Your task to perform on an android device: Open calendar and show me the fourth week of next month Image 0: 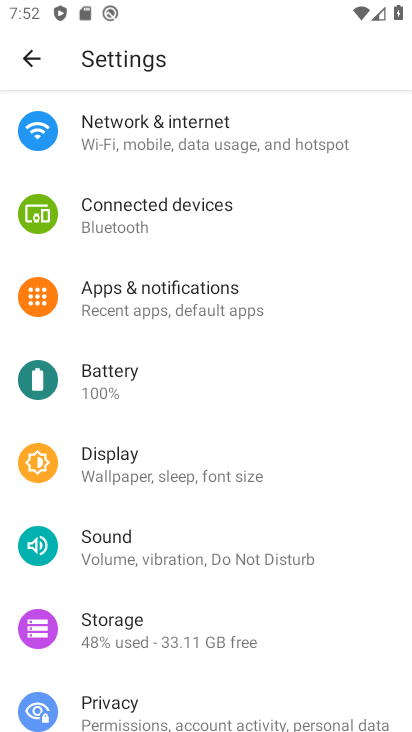
Step 0: press home button
Your task to perform on an android device: Open calendar and show me the fourth week of next month Image 1: 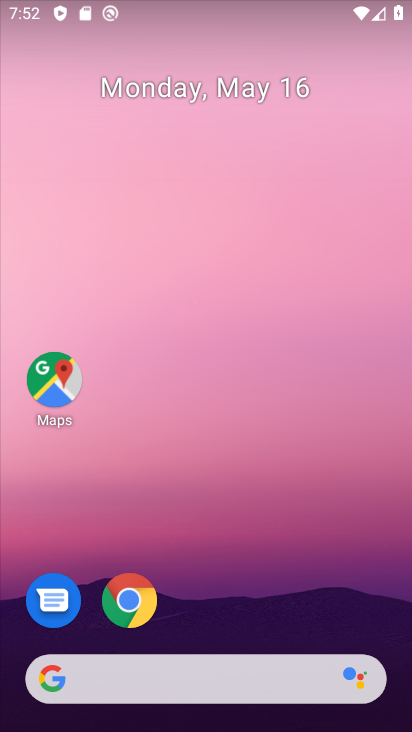
Step 1: drag from (401, 635) to (336, 91)
Your task to perform on an android device: Open calendar and show me the fourth week of next month Image 2: 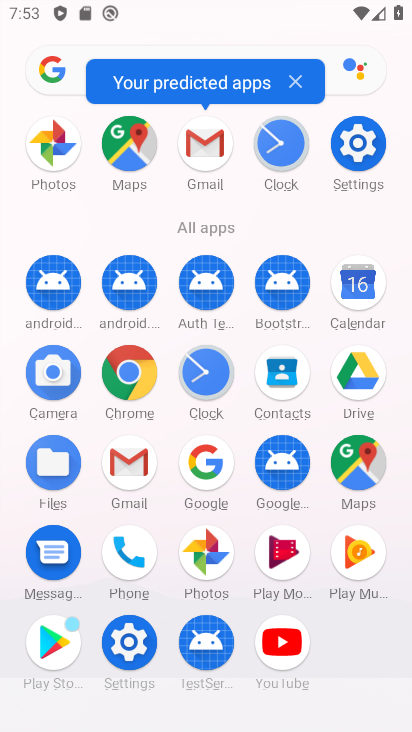
Step 2: click (354, 282)
Your task to perform on an android device: Open calendar and show me the fourth week of next month Image 3: 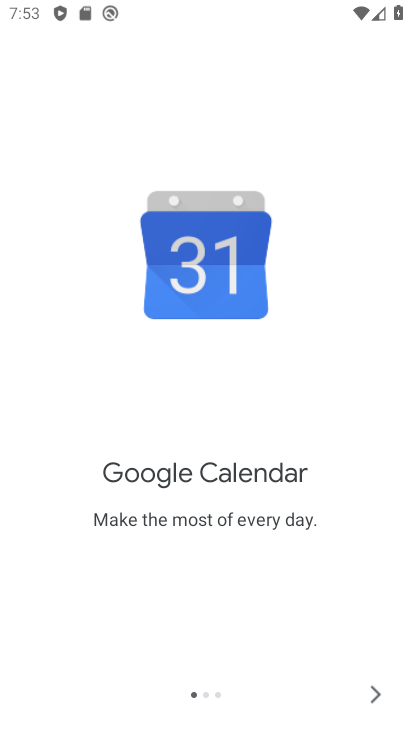
Step 3: click (378, 693)
Your task to perform on an android device: Open calendar and show me the fourth week of next month Image 4: 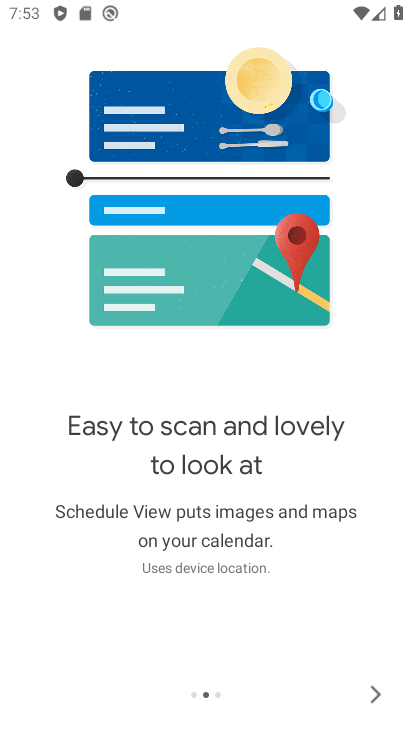
Step 4: click (378, 693)
Your task to perform on an android device: Open calendar and show me the fourth week of next month Image 5: 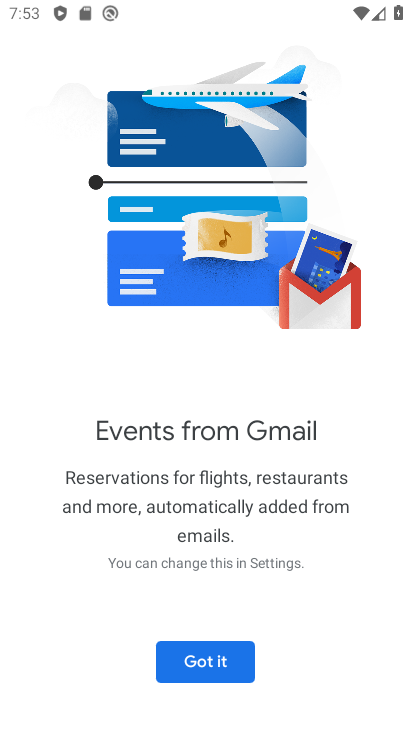
Step 5: click (210, 661)
Your task to perform on an android device: Open calendar and show me the fourth week of next month Image 6: 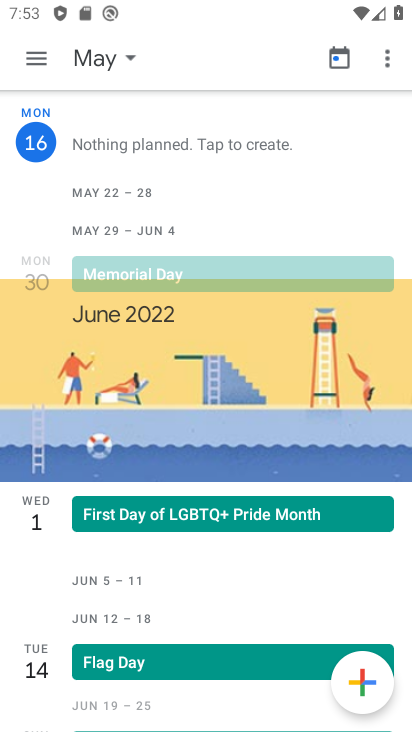
Step 6: click (38, 61)
Your task to perform on an android device: Open calendar and show me the fourth week of next month Image 7: 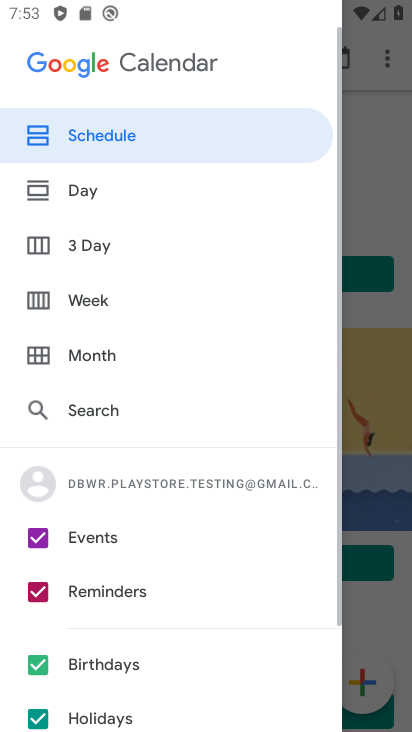
Step 7: click (101, 295)
Your task to perform on an android device: Open calendar and show me the fourth week of next month Image 8: 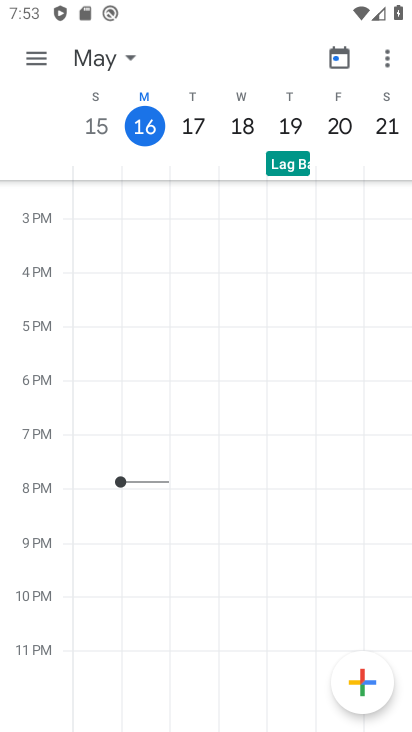
Step 8: click (129, 54)
Your task to perform on an android device: Open calendar and show me the fourth week of next month Image 9: 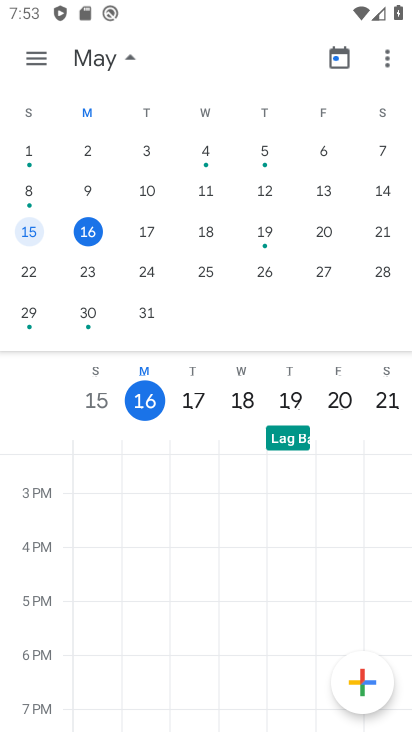
Step 9: drag from (374, 231) to (43, 155)
Your task to perform on an android device: Open calendar and show me the fourth week of next month Image 10: 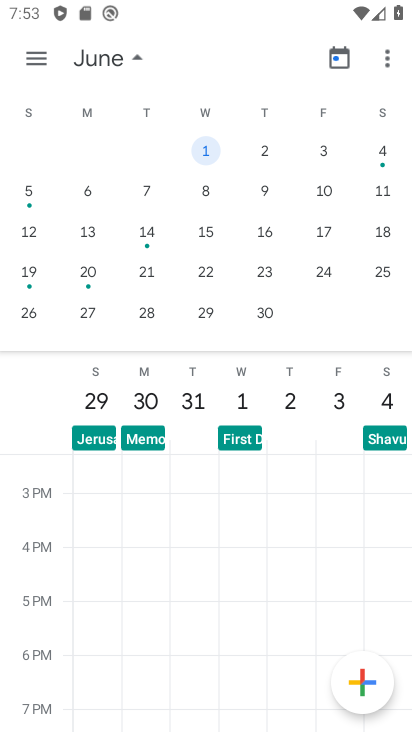
Step 10: click (27, 268)
Your task to perform on an android device: Open calendar and show me the fourth week of next month Image 11: 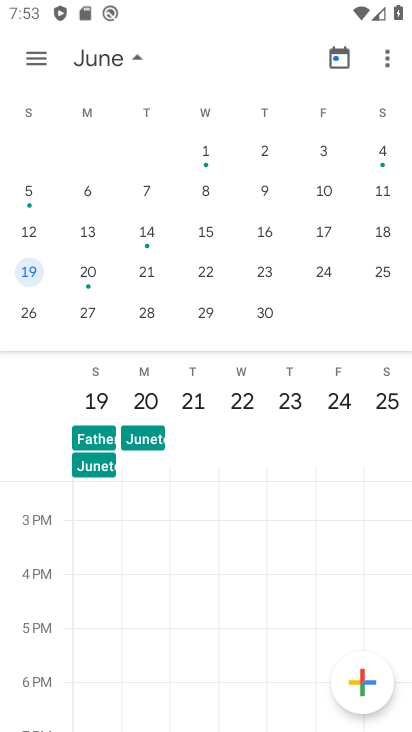
Step 11: task complete